Your task to perform on an android device: Is it going to rain today? Image 0: 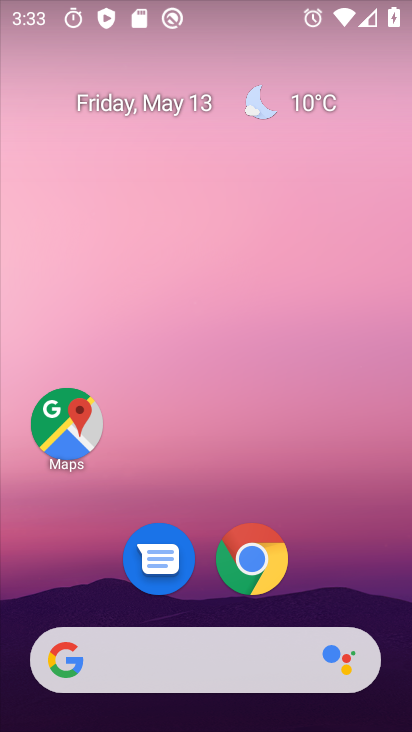
Step 0: drag from (206, 608) to (200, 215)
Your task to perform on an android device: Is it going to rain today? Image 1: 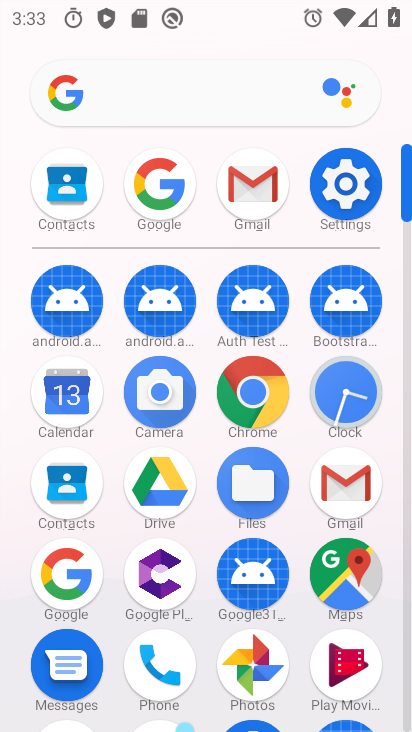
Step 1: click (71, 576)
Your task to perform on an android device: Is it going to rain today? Image 2: 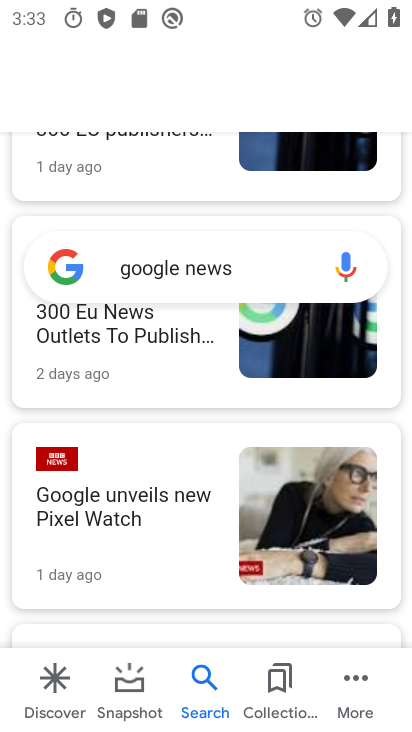
Step 2: drag from (170, 234) to (196, 546)
Your task to perform on an android device: Is it going to rain today? Image 3: 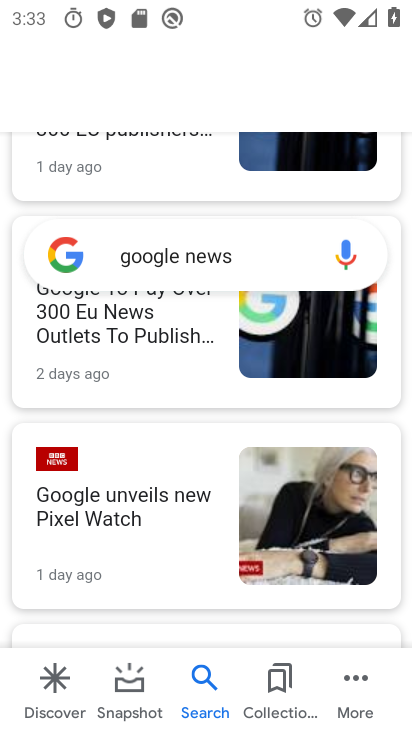
Step 3: drag from (186, 374) to (186, 606)
Your task to perform on an android device: Is it going to rain today? Image 4: 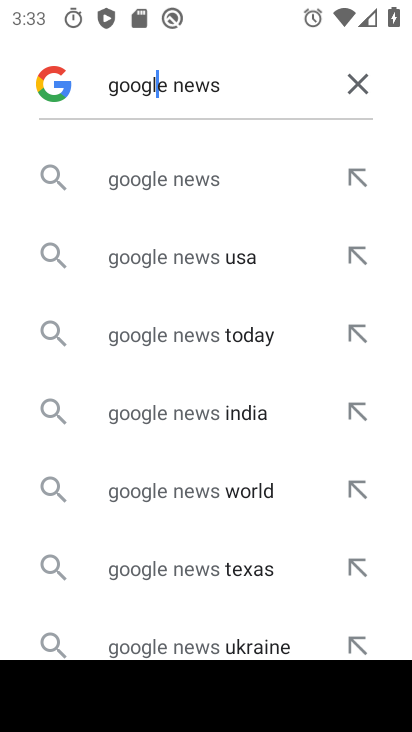
Step 4: drag from (196, 379) to (195, 556)
Your task to perform on an android device: Is it going to rain today? Image 5: 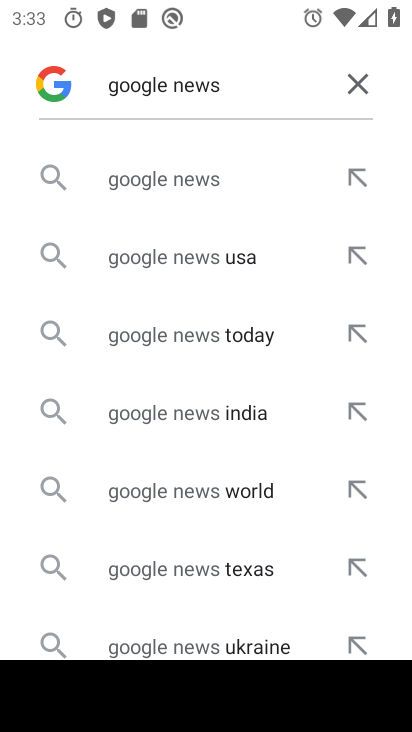
Step 5: click (356, 90)
Your task to perform on an android device: Is it going to rain today? Image 6: 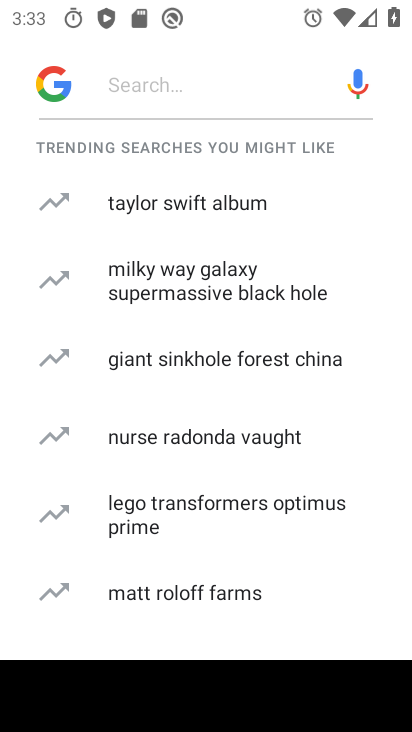
Step 6: click (162, 111)
Your task to perform on an android device: Is it going to rain today? Image 7: 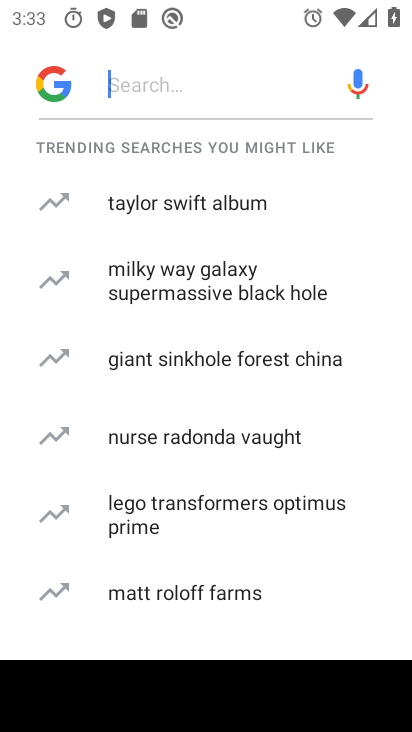
Step 7: click (154, 77)
Your task to perform on an android device: Is it going to rain today? Image 8: 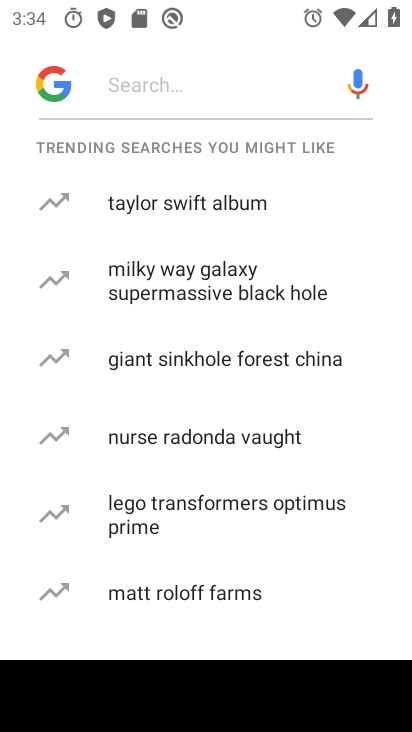
Step 8: type "weather"
Your task to perform on an android device: Is it going to rain today? Image 9: 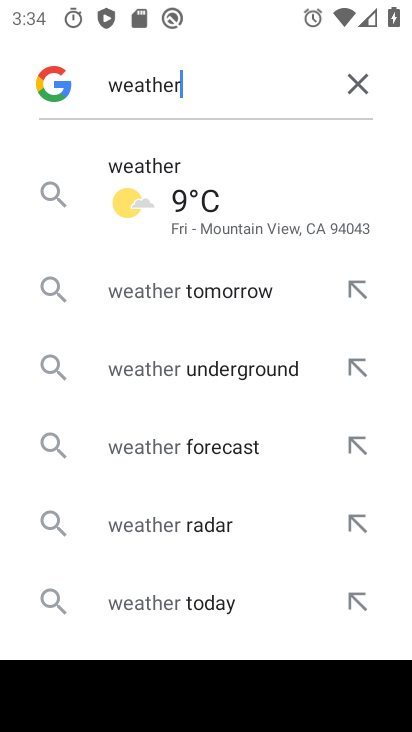
Step 9: click (182, 219)
Your task to perform on an android device: Is it going to rain today? Image 10: 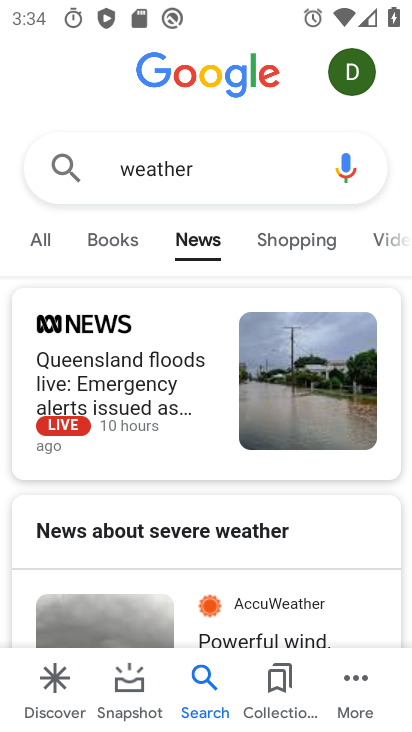
Step 10: click (45, 237)
Your task to perform on an android device: Is it going to rain today? Image 11: 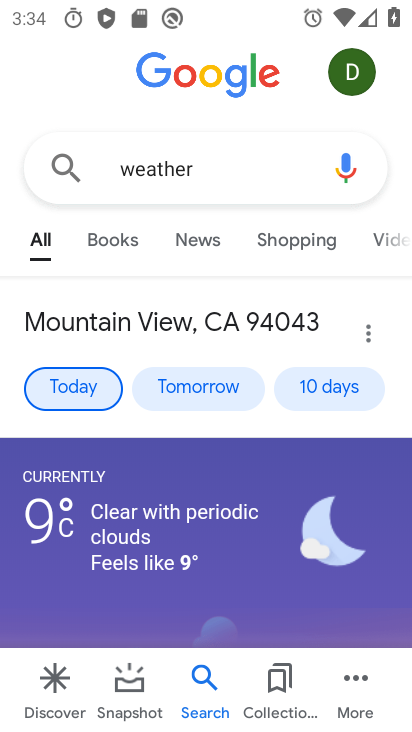
Step 11: task complete